Your task to perform on an android device: open chrome privacy settings Image 0: 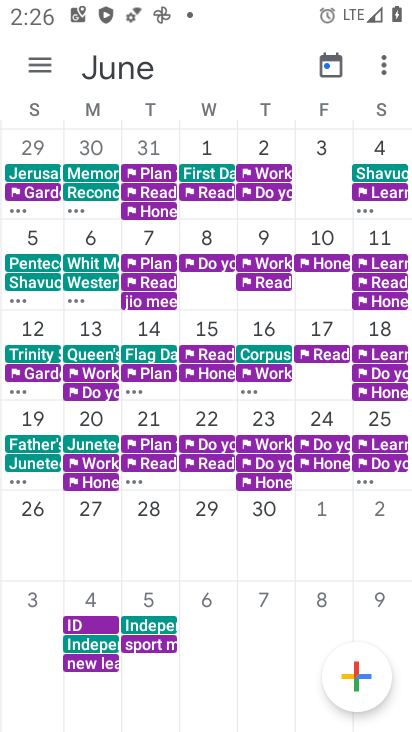
Step 0: press home button
Your task to perform on an android device: open chrome privacy settings Image 1: 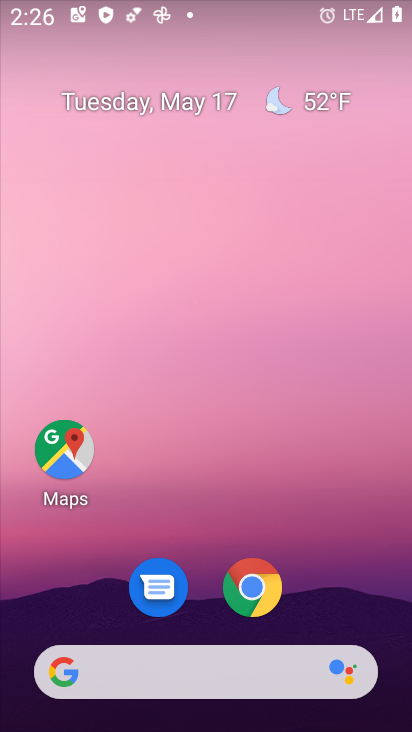
Step 1: click (338, 583)
Your task to perform on an android device: open chrome privacy settings Image 2: 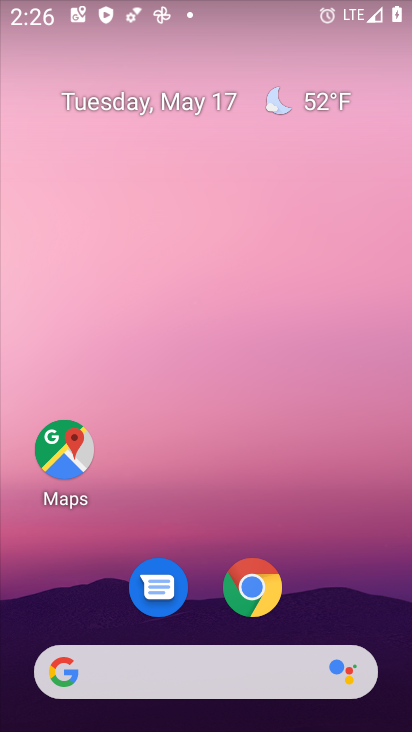
Step 2: click (280, 586)
Your task to perform on an android device: open chrome privacy settings Image 3: 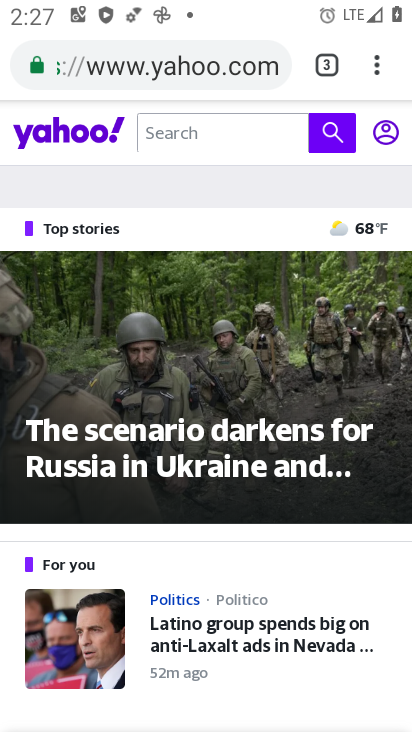
Step 3: click (367, 80)
Your task to perform on an android device: open chrome privacy settings Image 4: 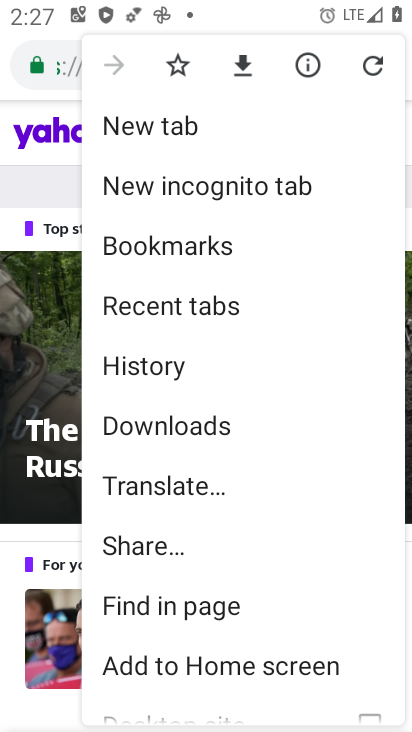
Step 4: drag from (177, 565) to (195, 268)
Your task to perform on an android device: open chrome privacy settings Image 5: 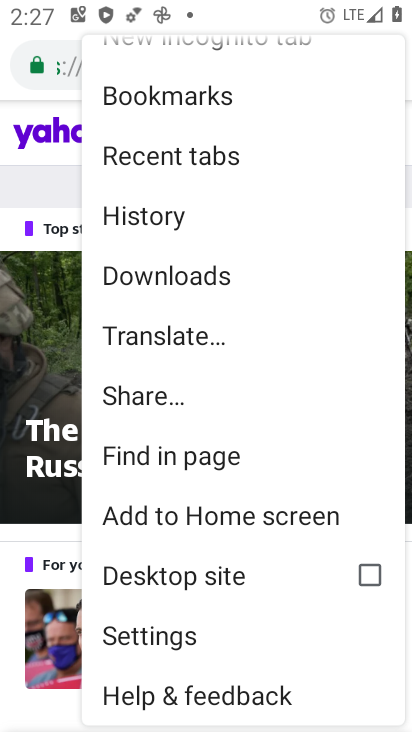
Step 5: click (151, 642)
Your task to perform on an android device: open chrome privacy settings Image 6: 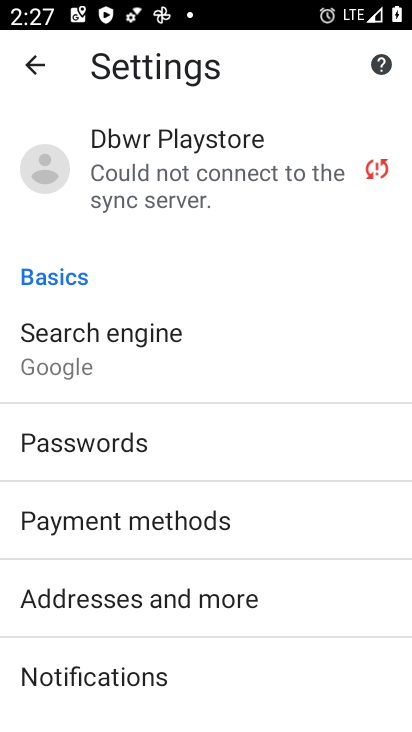
Step 6: drag from (200, 589) to (221, 338)
Your task to perform on an android device: open chrome privacy settings Image 7: 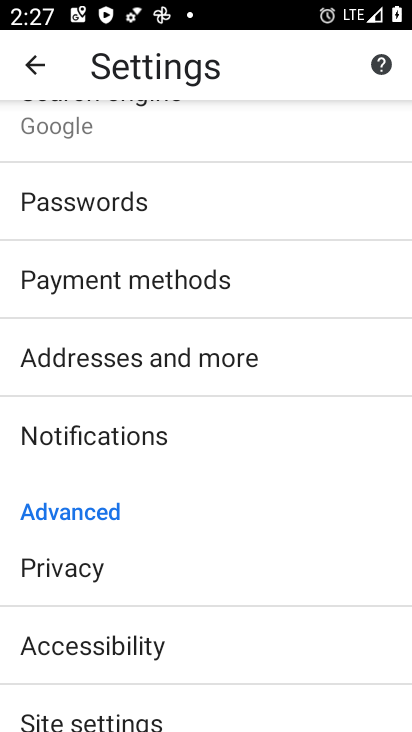
Step 7: click (156, 562)
Your task to perform on an android device: open chrome privacy settings Image 8: 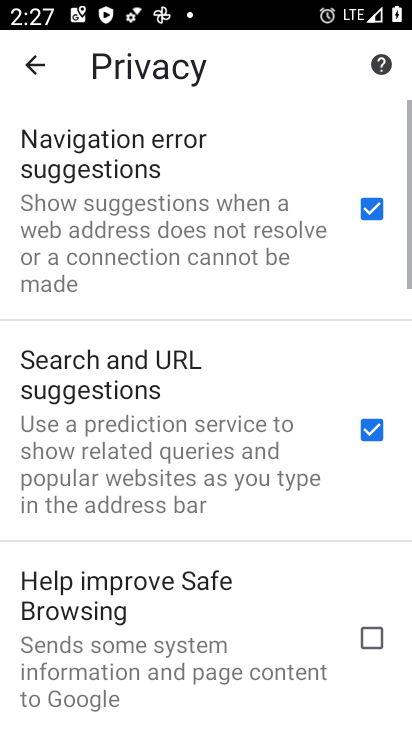
Step 8: task complete